Your task to perform on an android device: install app "Pinterest" Image 0: 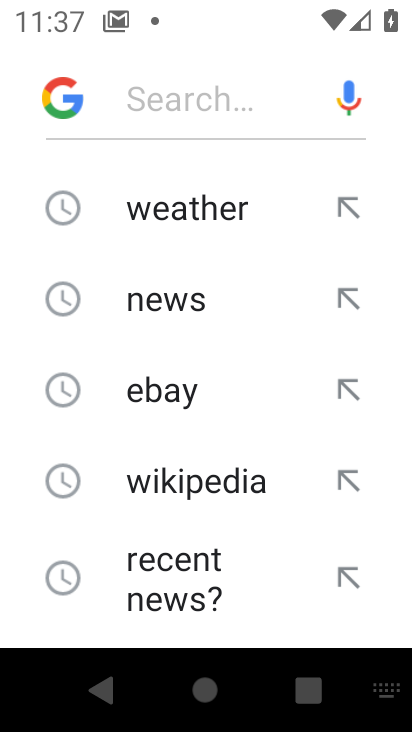
Step 0: press home button
Your task to perform on an android device: install app "Pinterest" Image 1: 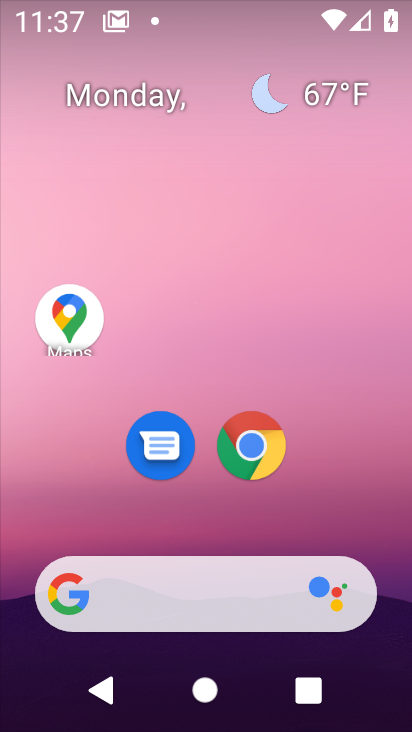
Step 1: drag from (218, 626) to (255, 83)
Your task to perform on an android device: install app "Pinterest" Image 2: 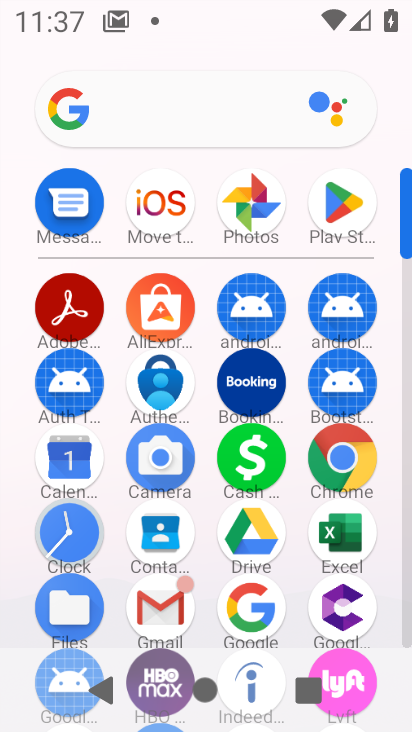
Step 2: click (342, 194)
Your task to perform on an android device: install app "Pinterest" Image 3: 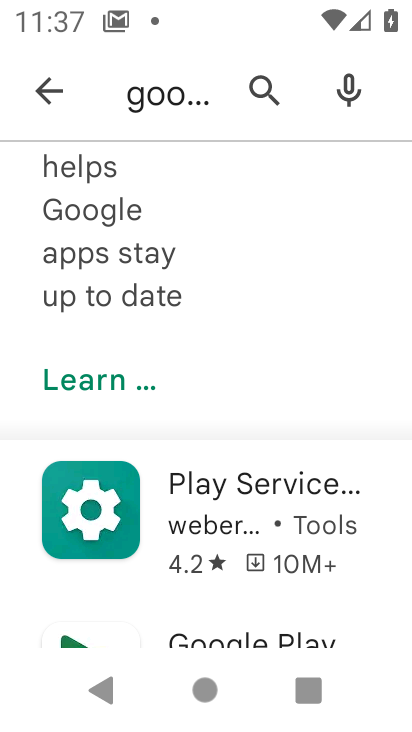
Step 3: click (60, 94)
Your task to perform on an android device: install app "Pinterest" Image 4: 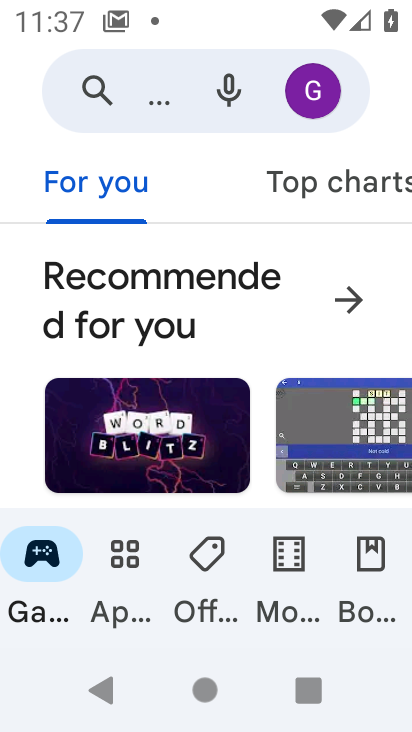
Step 4: click (68, 98)
Your task to perform on an android device: install app "Pinterest" Image 5: 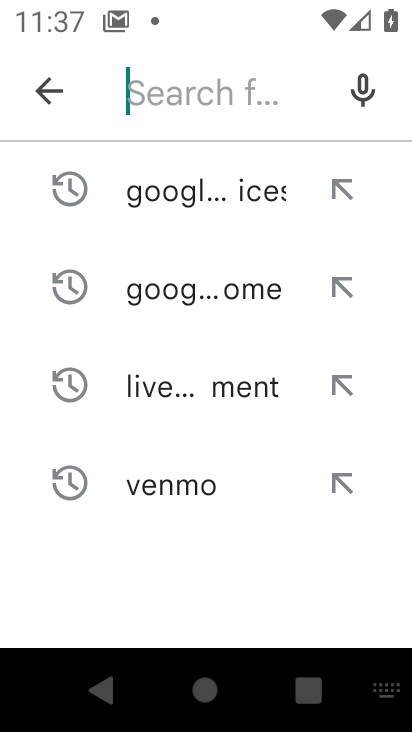
Step 5: drag from (71, 172) to (127, 132)
Your task to perform on an android device: install app "Pinterest" Image 6: 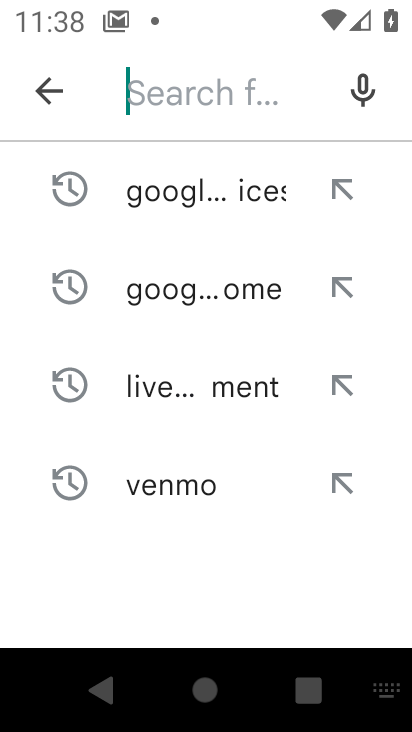
Step 6: type "Pinterest"
Your task to perform on an android device: install app "Pinterest" Image 7: 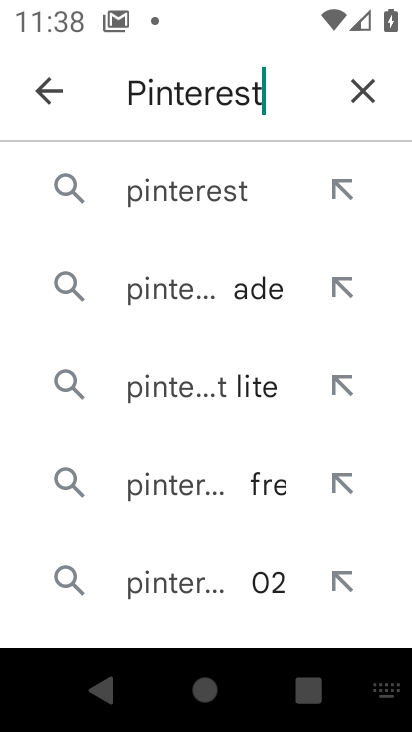
Step 7: type ""
Your task to perform on an android device: install app "Pinterest" Image 8: 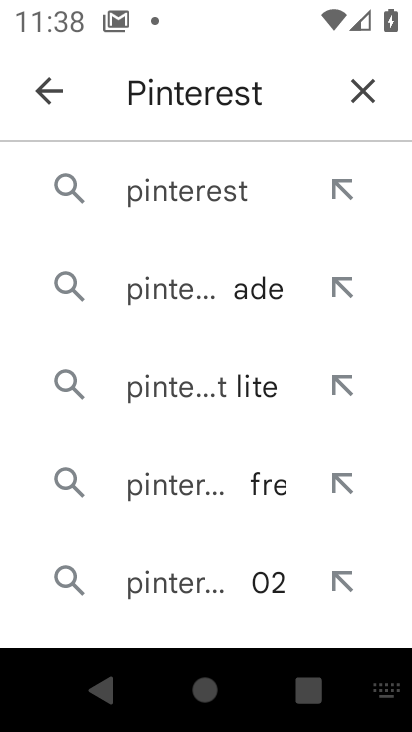
Step 8: click (204, 198)
Your task to perform on an android device: install app "Pinterest" Image 9: 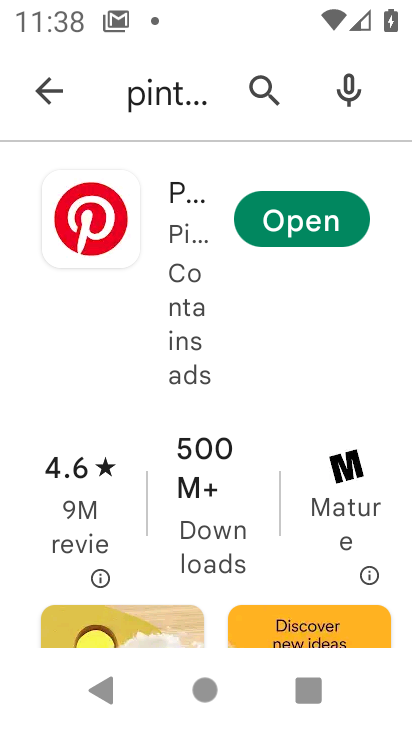
Step 9: task complete